Your task to perform on an android device: Open calendar and show me the third week of next month Image 0: 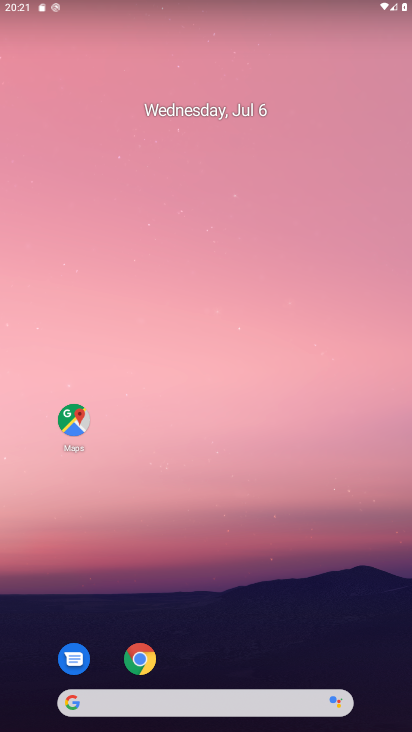
Step 0: click (218, 97)
Your task to perform on an android device: Open calendar and show me the third week of next month Image 1: 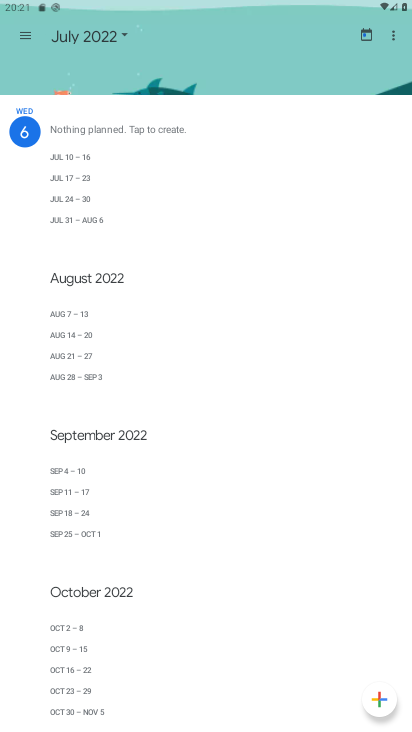
Step 1: click (111, 35)
Your task to perform on an android device: Open calendar and show me the third week of next month Image 2: 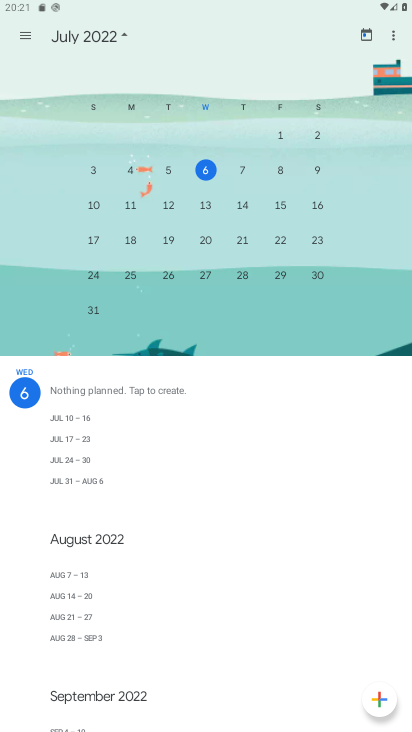
Step 2: drag from (364, 305) to (40, 315)
Your task to perform on an android device: Open calendar and show me the third week of next month Image 3: 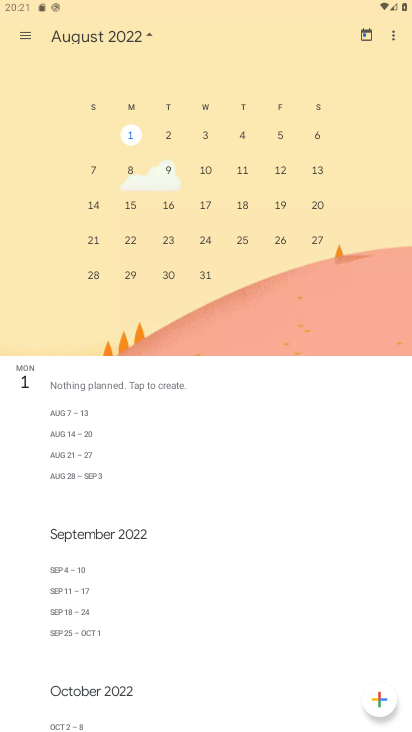
Step 3: click (132, 207)
Your task to perform on an android device: Open calendar and show me the third week of next month Image 4: 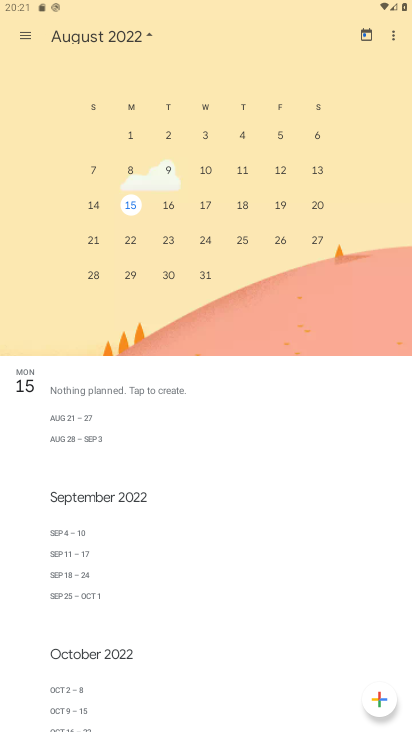
Step 4: task complete